Your task to perform on an android device: Go to battery settings Image 0: 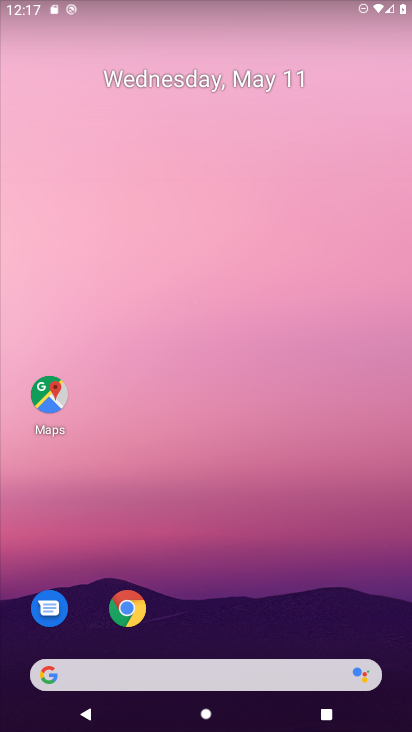
Step 0: drag from (260, 560) to (293, 102)
Your task to perform on an android device: Go to battery settings Image 1: 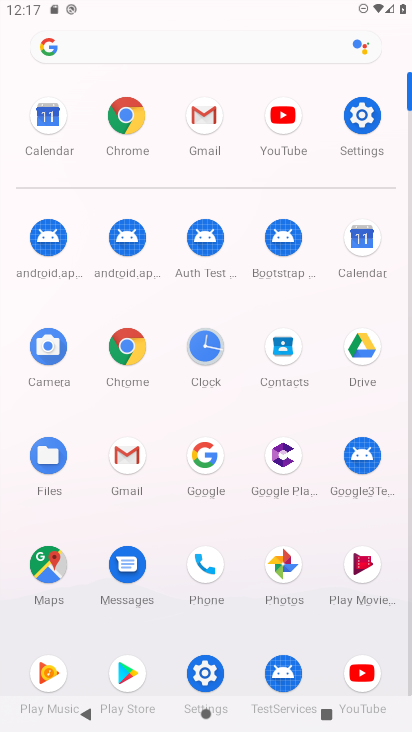
Step 1: click (354, 105)
Your task to perform on an android device: Go to battery settings Image 2: 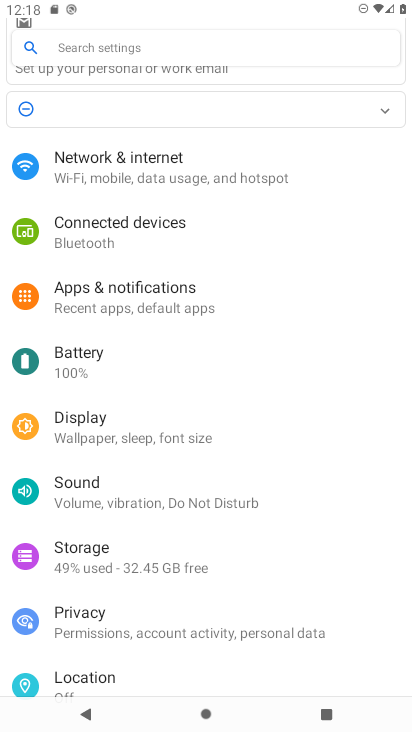
Step 2: click (146, 364)
Your task to perform on an android device: Go to battery settings Image 3: 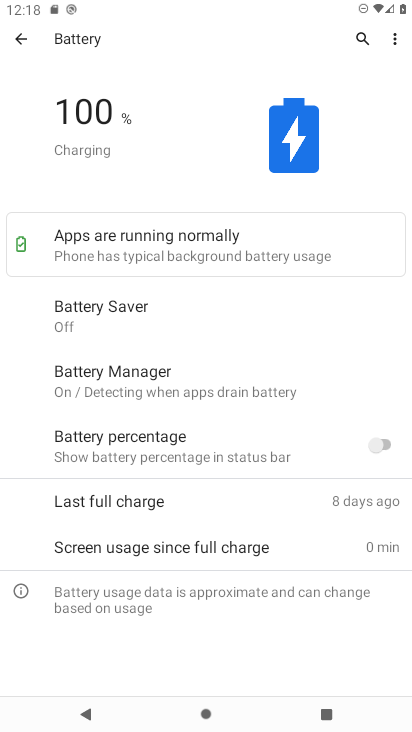
Step 3: task complete